Your task to perform on an android device: Open the phone app and click the voicemail tab. Image 0: 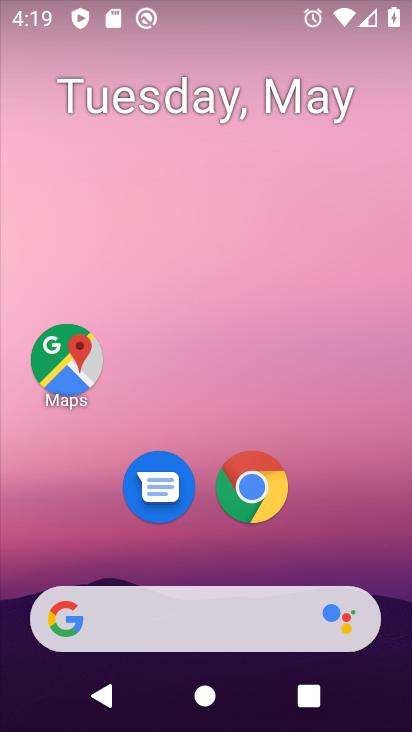
Step 0: drag from (361, 489) to (265, 118)
Your task to perform on an android device: Open the phone app and click the voicemail tab. Image 1: 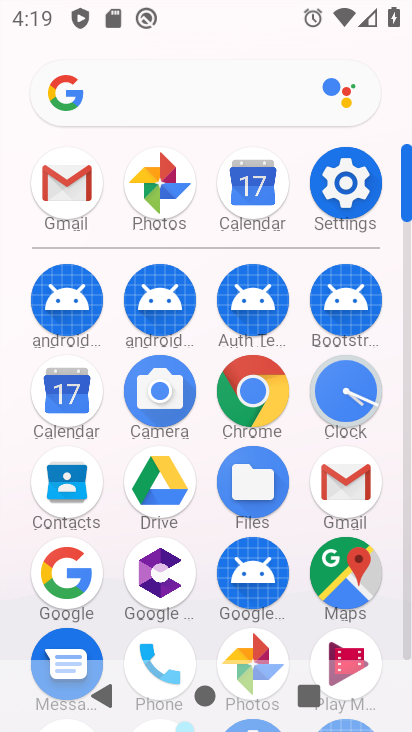
Step 1: click (162, 661)
Your task to perform on an android device: Open the phone app and click the voicemail tab. Image 2: 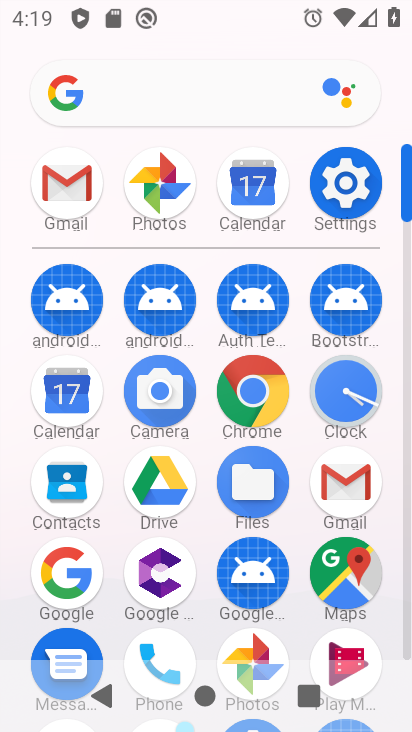
Step 2: click (161, 652)
Your task to perform on an android device: Open the phone app and click the voicemail tab. Image 3: 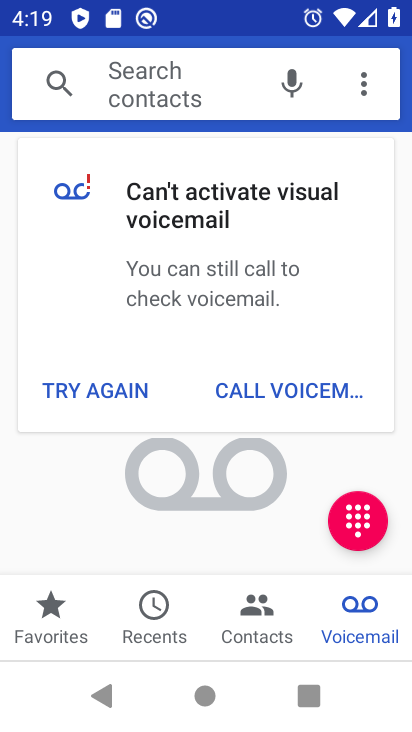
Step 3: task complete